Your task to perform on an android device: toggle airplane mode Image 0: 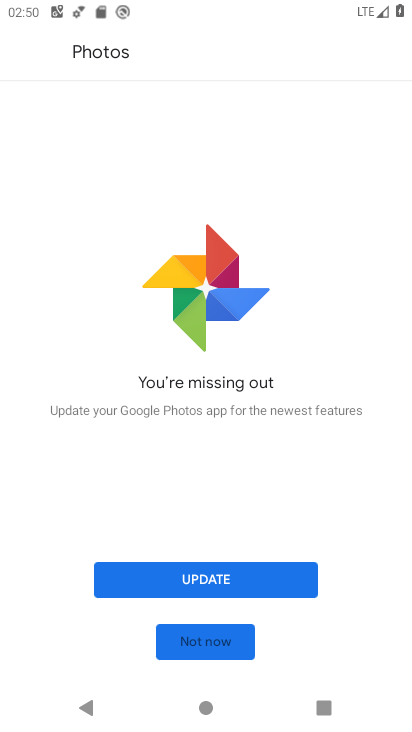
Step 0: press home button
Your task to perform on an android device: toggle airplane mode Image 1: 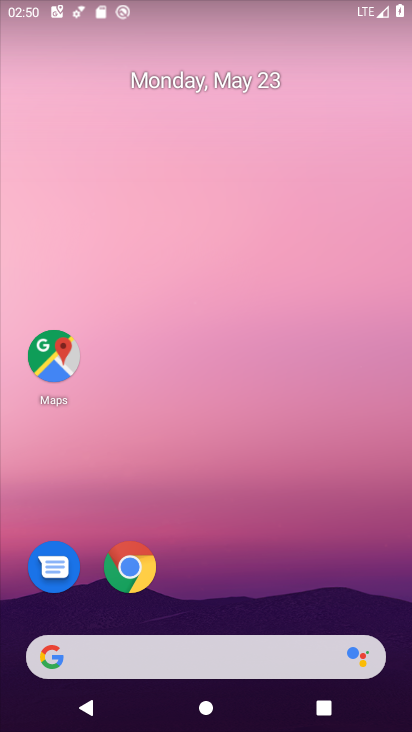
Step 1: drag from (233, 564) to (249, 161)
Your task to perform on an android device: toggle airplane mode Image 2: 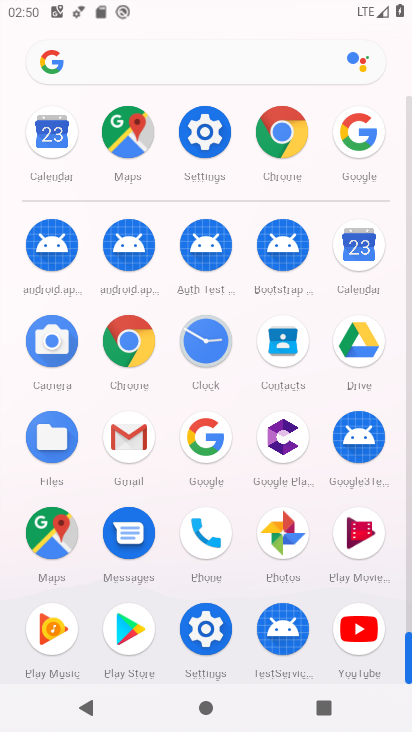
Step 2: click (219, 638)
Your task to perform on an android device: toggle airplane mode Image 3: 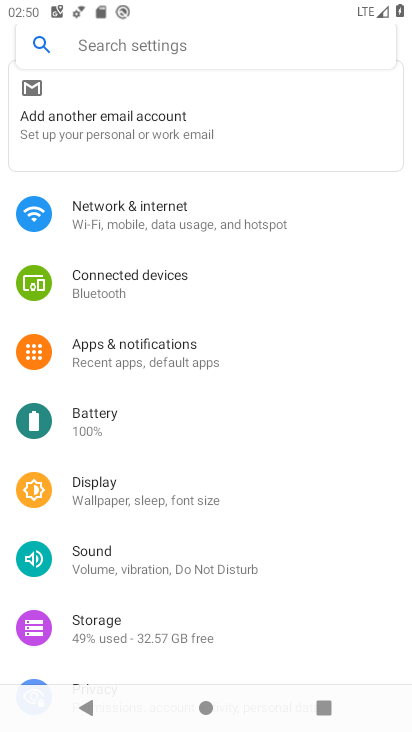
Step 3: click (189, 231)
Your task to perform on an android device: toggle airplane mode Image 4: 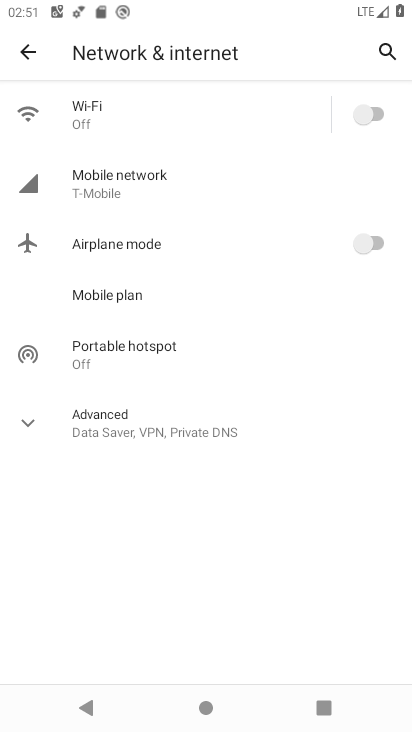
Step 4: click (352, 252)
Your task to perform on an android device: toggle airplane mode Image 5: 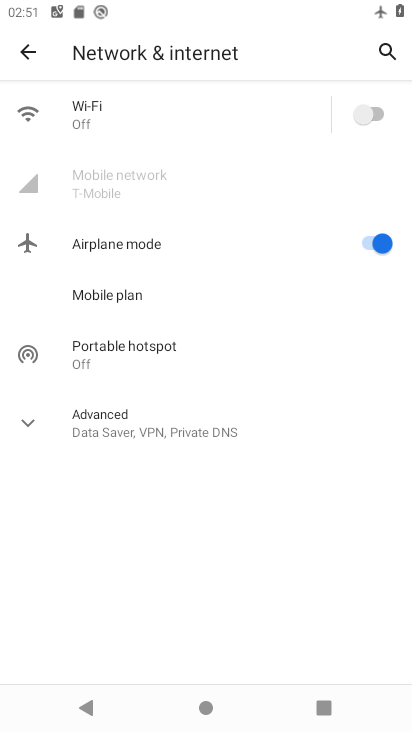
Step 5: task complete